Your task to perform on an android device: check data usage Image 0: 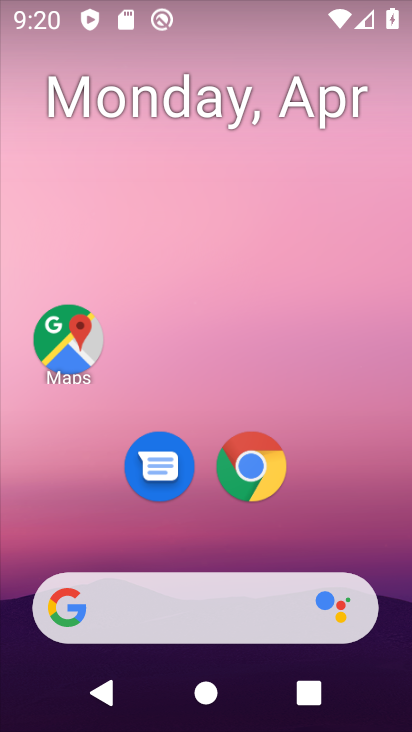
Step 0: drag from (219, 563) to (251, 118)
Your task to perform on an android device: check data usage Image 1: 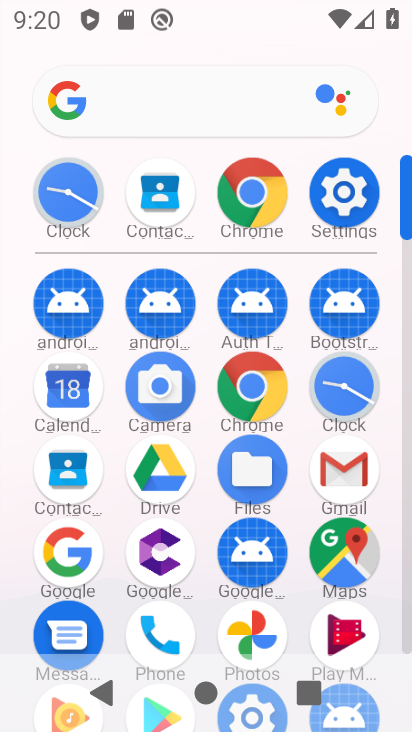
Step 1: click (353, 221)
Your task to perform on an android device: check data usage Image 2: 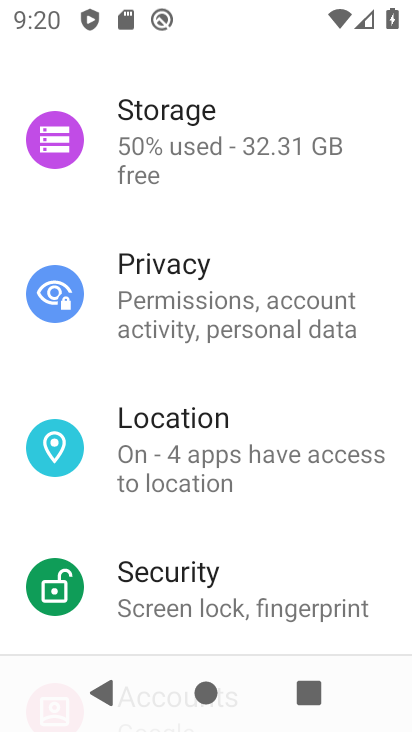
Step 2: drag from (286, 195) to (248, 299)
Your task to perform on an android device: check data usage Image 3: 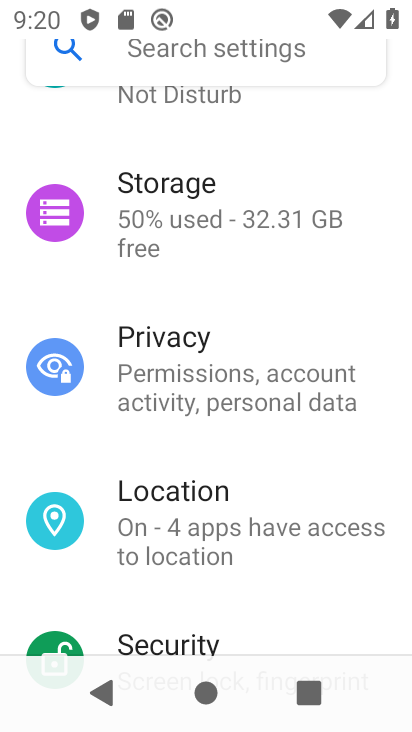
Step 3: drag from (244, 159) to (249, 348)
Your task to perform on an android device: check data usage Image 4: 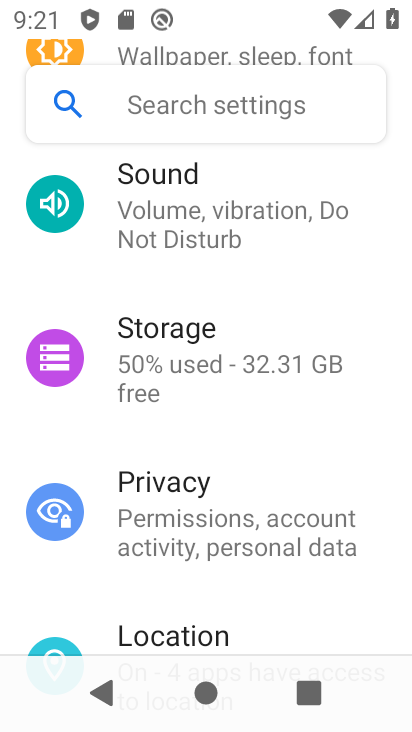
Step 4: drag from (277, 219) to (284, 308)
Your task to perform on an android device: check data usage Image 5: 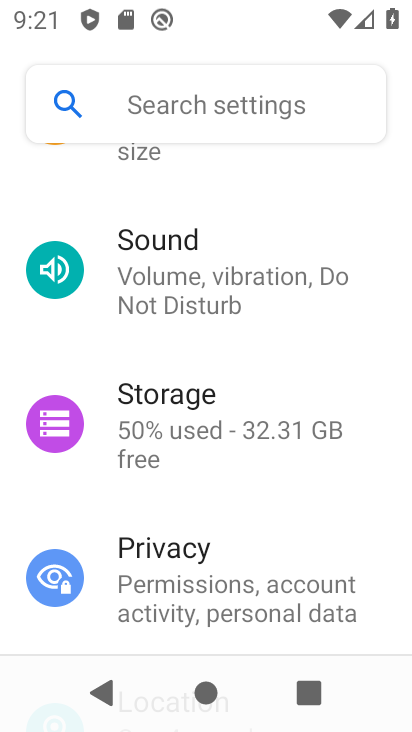
Step 5: drag from (264, 207) to (260, 322)
Your task to perform on an android device: check data usage Image 6: 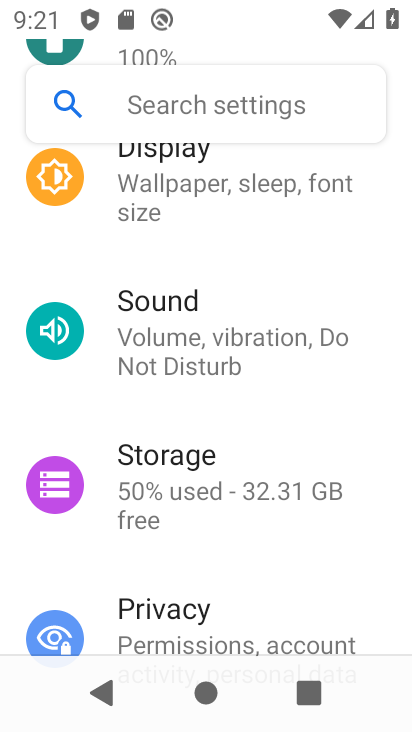
Step 6: drag from (266, 272) to (270, 336)
Your task to perform on an android device: check data usage Image 7: 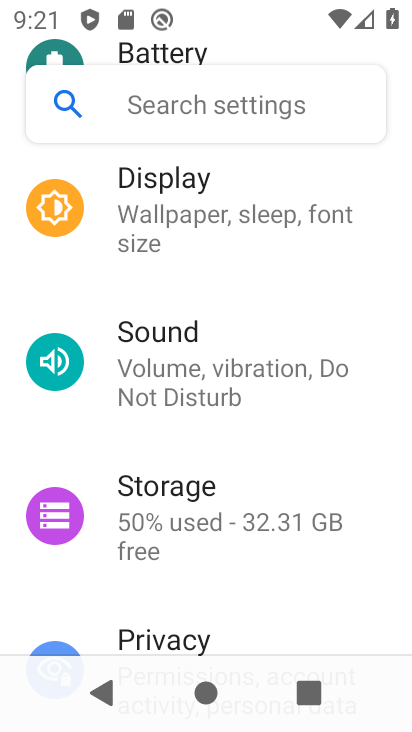
Step 7: drag from (269, 187) to (279, 305)
Your task to perform on an android device: check data usage Image 8: 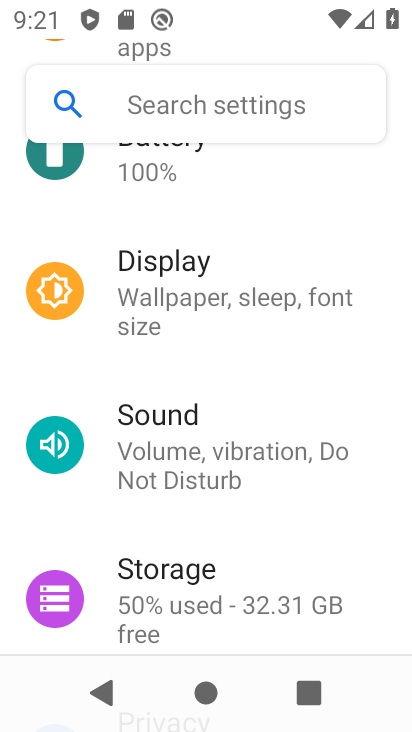
Step 8: drag from (272, 203) to (279, 350)
Your task to perform on an android device: check data usage Image 9: 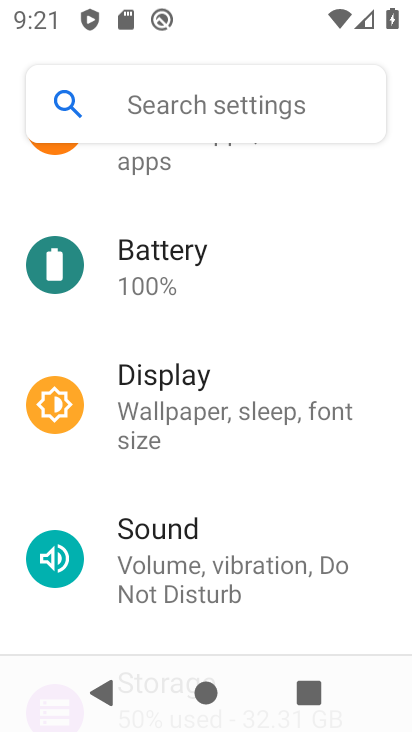
Step 9: drag from (259, 218) to (250, 379)
Your task to perform on an android device: check data usage Image 10: 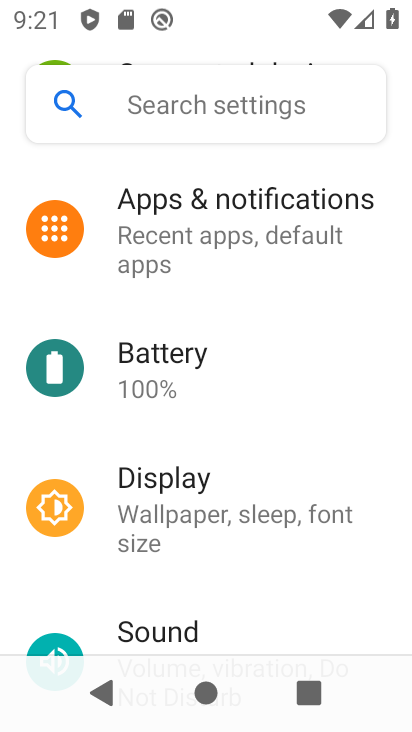
Step 10: drag from (257, 238) to (255, 368)
Your task to perform on an android device: check data usage Image 11: 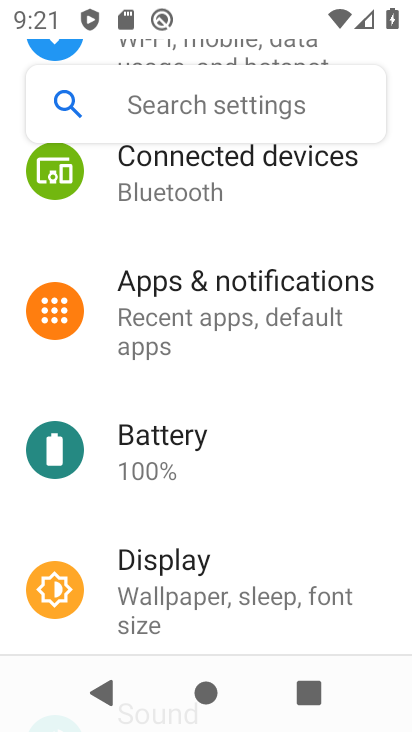
Step 11: drag from (253, 240) to (246, 401)
Your task to perform on an android device: check data usage Image 12: 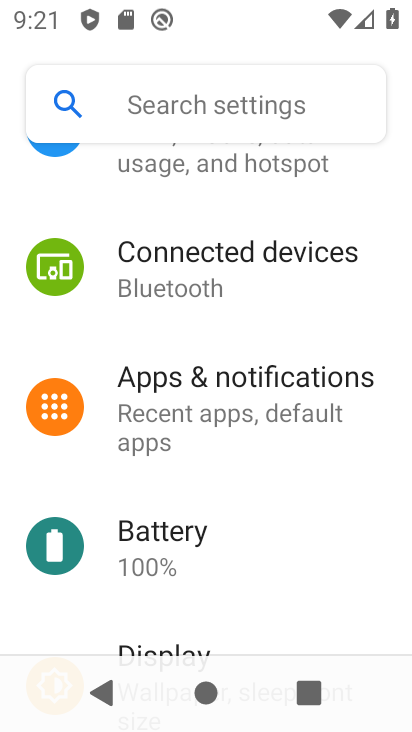
Step 12: drag from (252, 226) to (246, 393)
Your task to perform on an android device: check data usage Image 13: 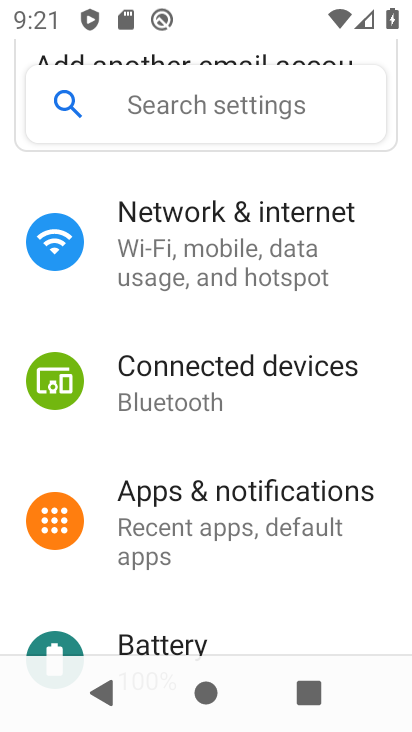
Step 13: click (264, 220)
Your task to perform on an android device: check data usage Image 14: 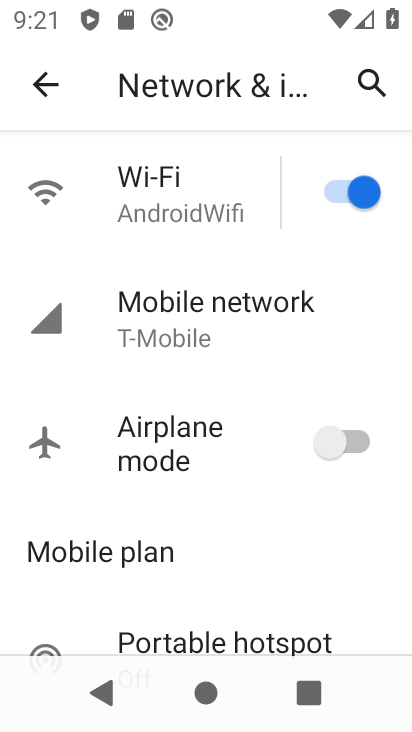
Step 14: click (188, 294)
Your task to perform on an android device: check data usage Image 15: 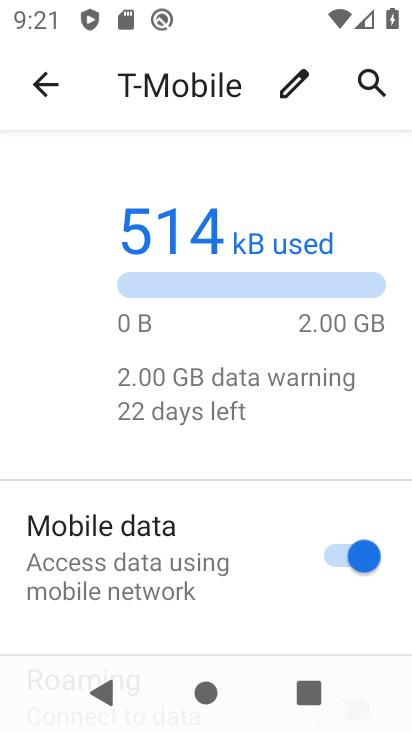
Step 15: task complete